Your task to perform on an android device: check storage Image 0: 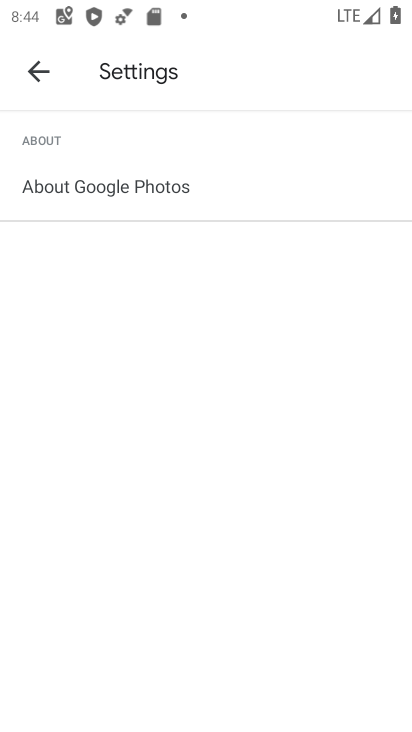
Step 0: press home button
Your task to perform on an android device: check storage Image 1: 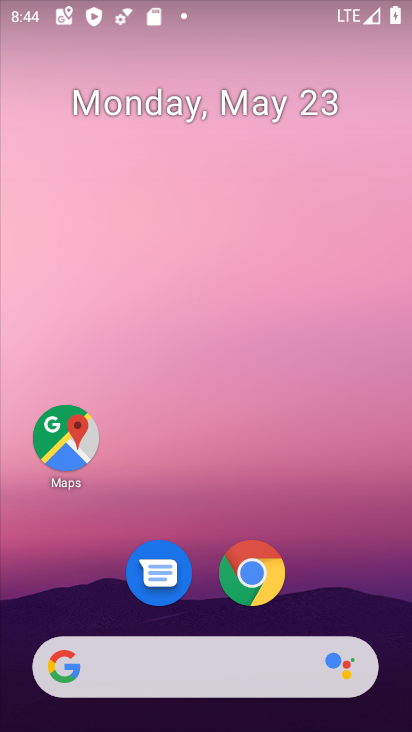
Step 1: drag from (232, 459) to (259, 3)
Your task to perform on an android device: check storage Image 2: 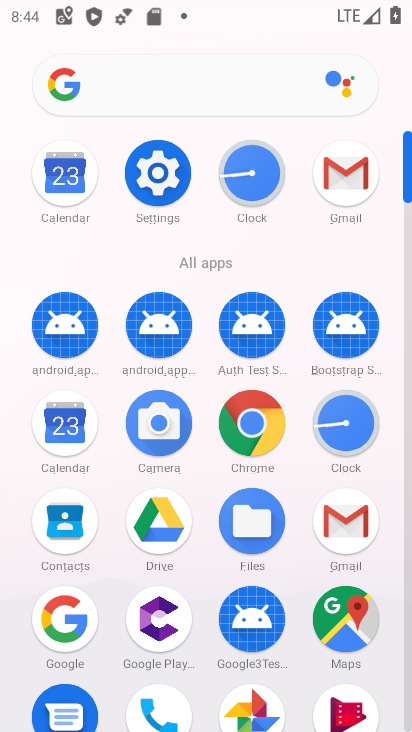
Step 2: click (160, 184)
Your task to perform on an android device: check storage Image 3: 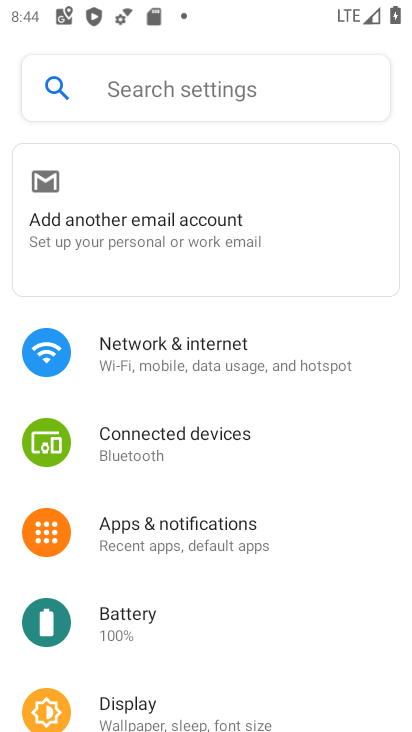
Step 3: drag from (214, 596) to (251, 145)
Your task to perform on an android device: check storage Image 4: 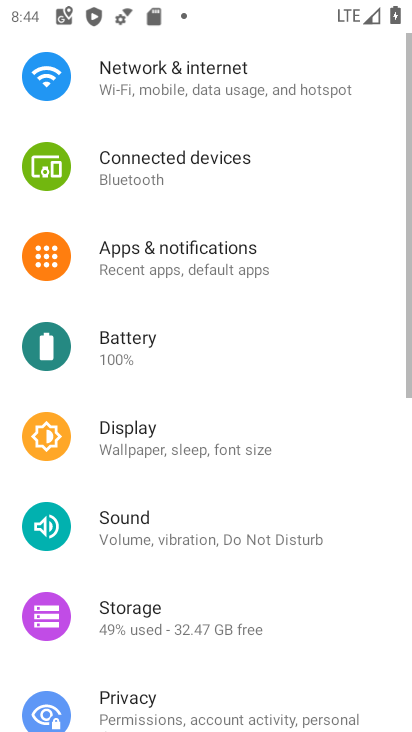
Step 4: click (160, 623)
Your task to perform on an android device: check storage Image 5: 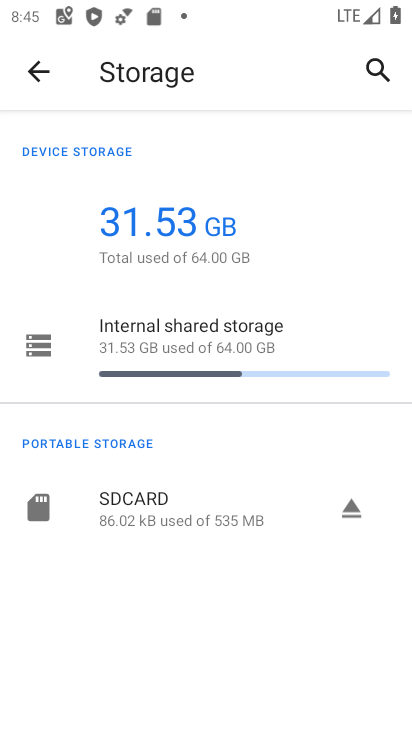
Step 5: task complete